Your task to perform on an android device: Show the shopping cart on target.com. Search for razer blackwidow on target.com, select the first entry, and add it to the cart. Image 0: 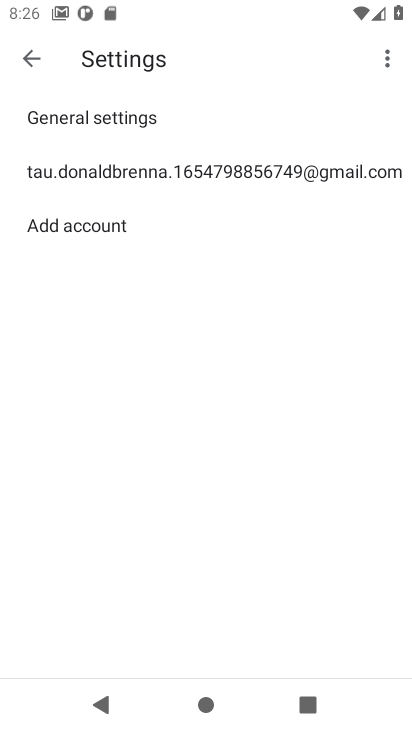
Step 0: press home button
Your task to perform on an android device: Show the shopping cart on target.com. Search for razer blackwidow on target.com, select the first entry, and add it to the cart. Image 1: 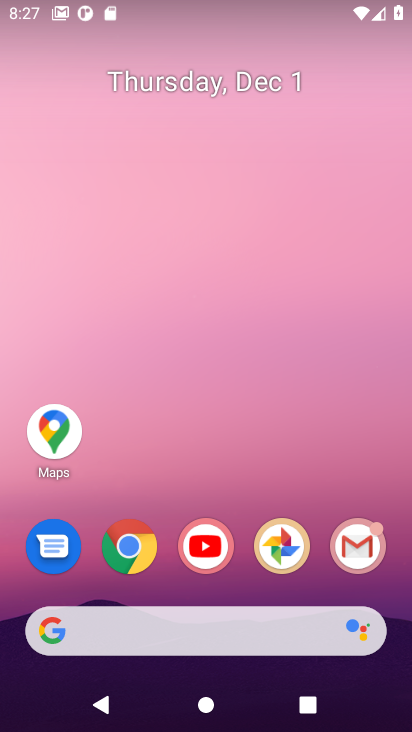
Step 1: click (137, 546)
Your task to perform on an android device: Show the shopping cart on target.com. Search for razer blackwidow on target.com, select the first entry, and add it to the cart. Image 2: 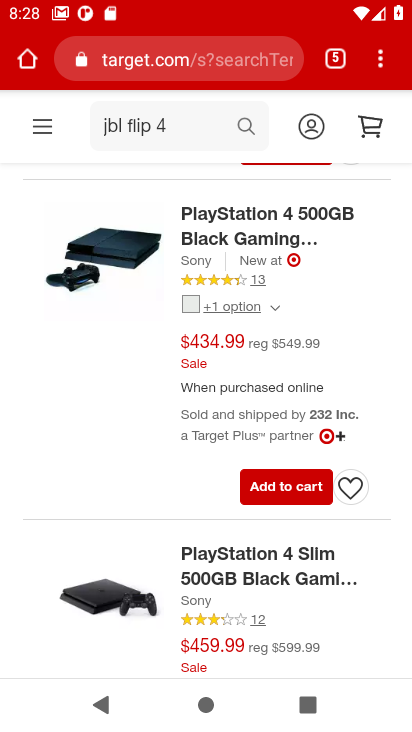
Step 2: click (372, 122)
Your task to perform on an android device: Show the shopping cart on target.com. Search for razer blackwidow on target.com, select the first entry, and add it to the cart. Image 3: 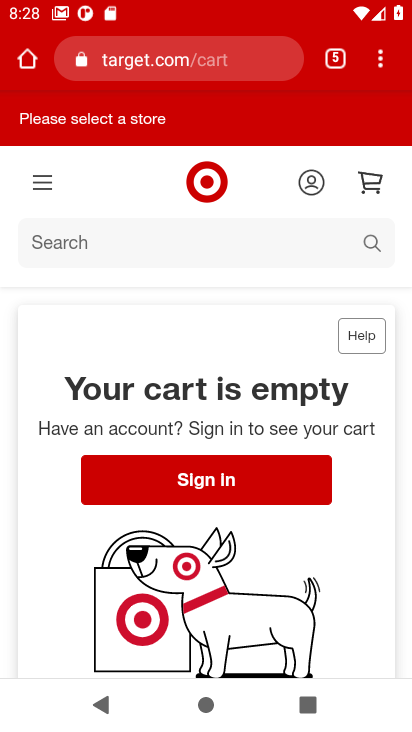
Step 3: click (84, 246)
Your task to perform on an android device: Show the shopping cart on target.com. Search for razer blackwidow on target.com, select the first entry, and add it to the cart. Image 4: 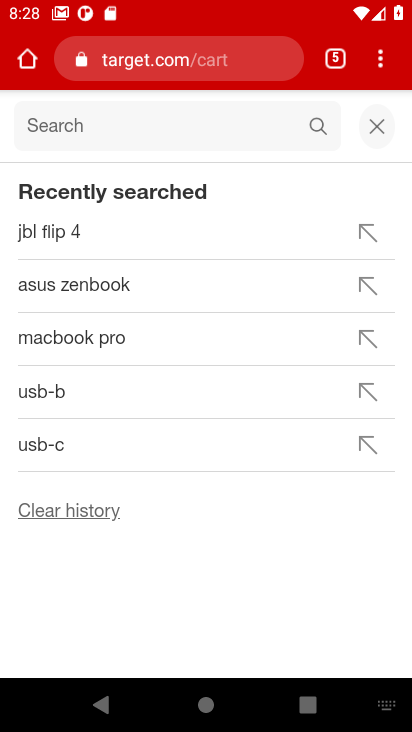
Step 4: type "razer blackwidow"
Your task to perform on an android device: Show the shopping cart on target.com. Search for razer blackwidow on target.com, select the first entry, and add it to the cart. Image 5: 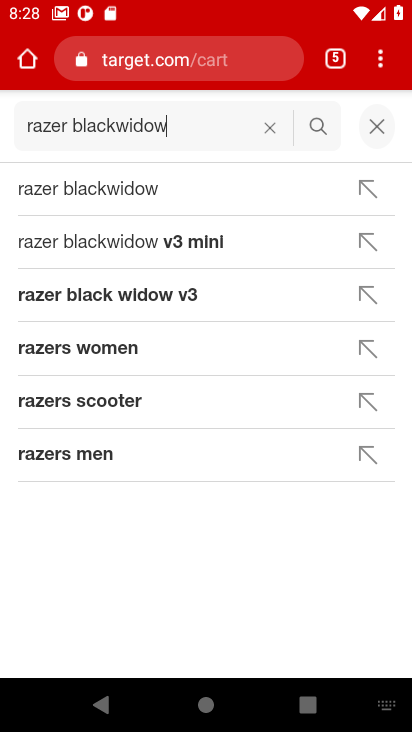
Step 5: click (123, 194)
Your task to perform on an android device: Show the shopping cart on target.com. Search for razer blackwidow on target.com, select the first entry, and add it to the cart. Image 6: 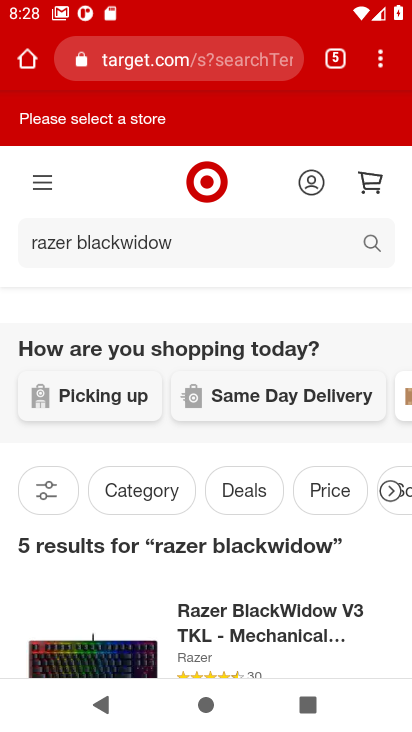
Step 6: drag from (159, 544) to (158, 312)
Your task to perform on an android device: Show the shopping cart on target.com. Search for razer blackwidow on target.com, select the first entry, and add it to the cart. Image 7: 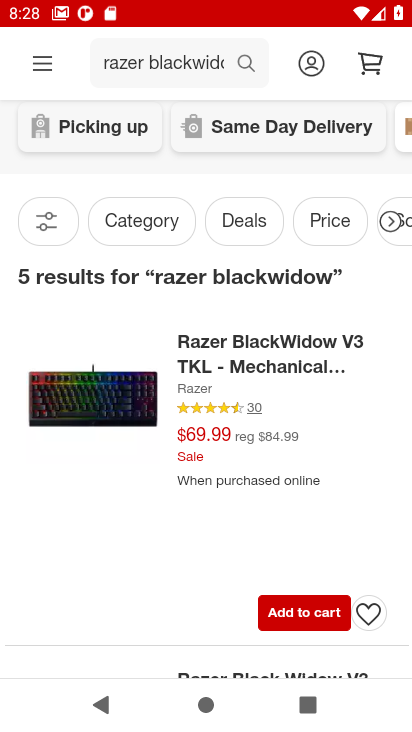
Step 7: click (273, 623)
Your task to perform on an android device: Show the shopping cart on target.com. Search for razer blackwidow on target.com, select the first entry, and add it to the cart. Image 8: 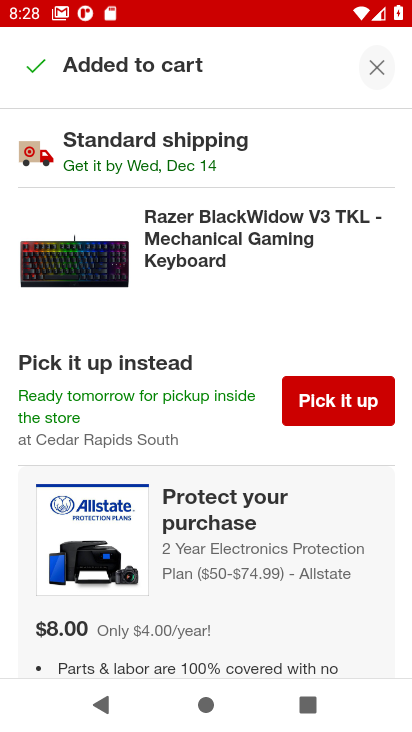
Step 8: task complete